Your task to perform on an android device: Search for pizza restaurants on Maps Image 0: 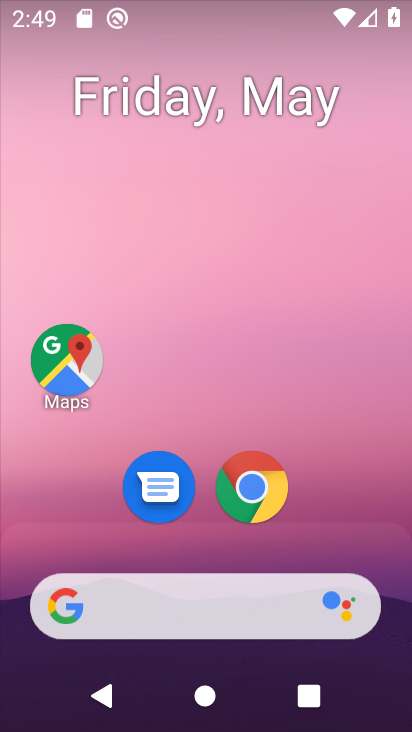
Step 0: click (68, 380)
Your task to perform on an android device: Search for pizza restaurants on Maps Image 1: 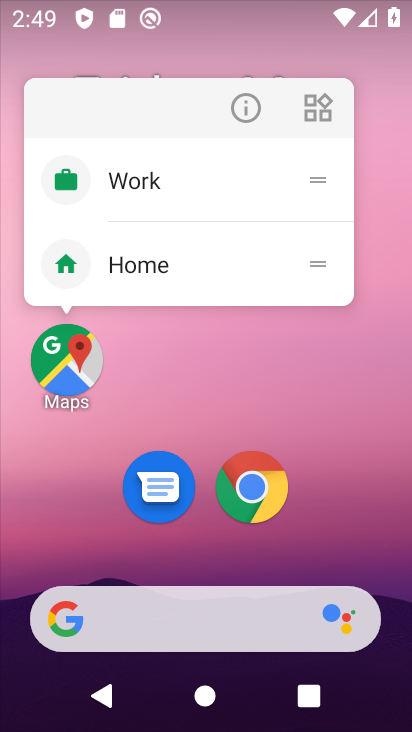
Step 1: click (70, 383)
Your task to perform on an android device: Search for pizza restaurants on Maps Image 2: 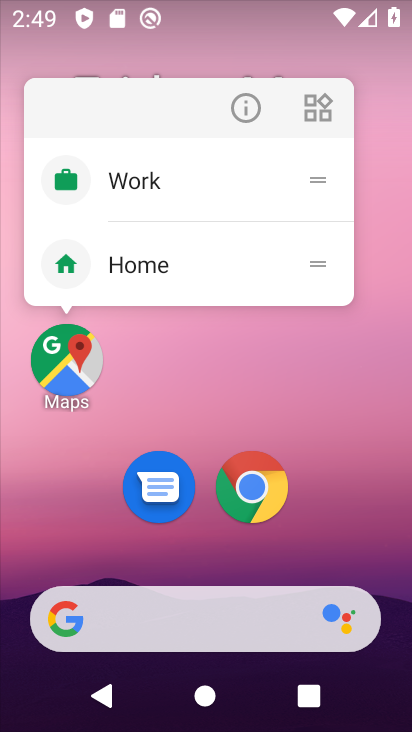
Step 2: click (68, 378)
Your task to perform on an android device: Search for pizza restaurants on Maps Image 3: 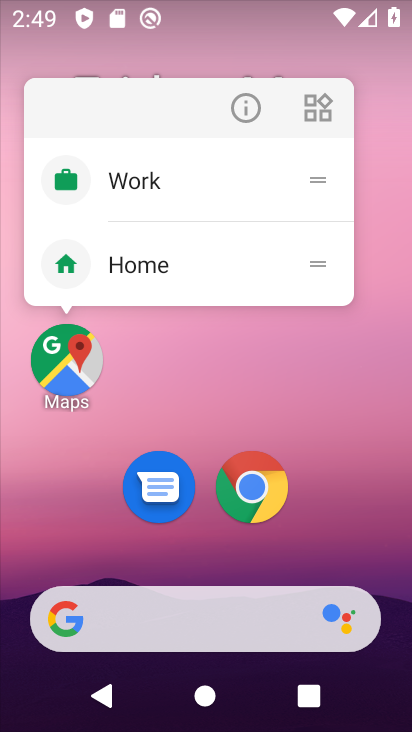
Step 3: click (68, 378)
Your task to perform on an android device: Search for pizza restaurants on Maps Image 4: 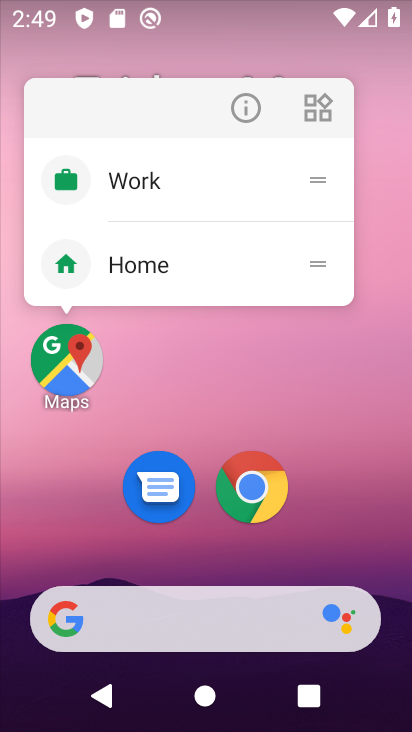
Step 4: click (68, 378)
Your task to perform on an android device: Search for pizza restaurants on Maps Image 5: 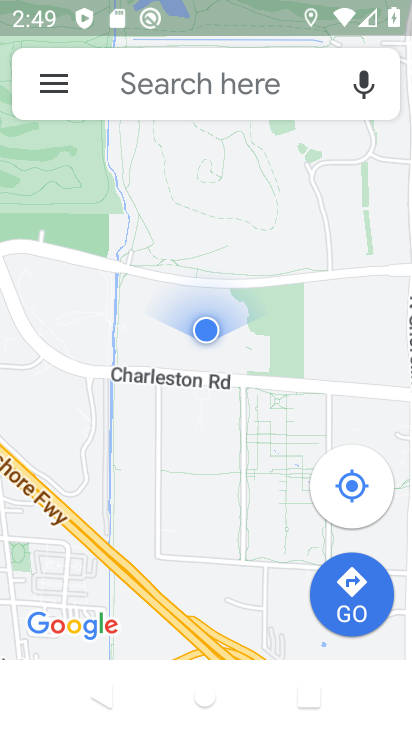
Step 5: click (223, 102)
Your task to perform on an android device: Search for pizza restaurants on Maps Image 6: 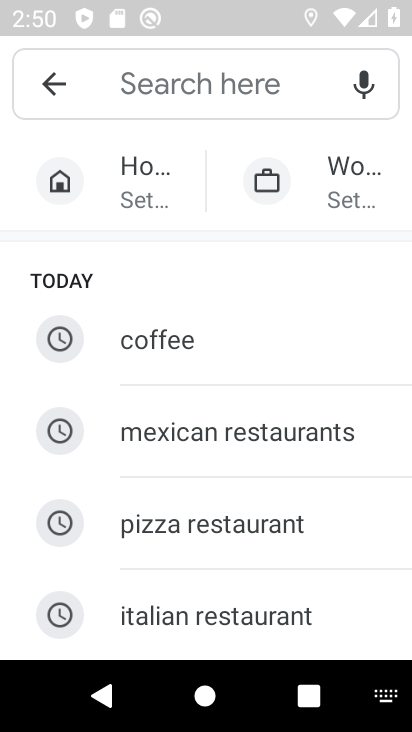
Step 6: type "Pizza restaurants"
Your task to perform on an android device: Search for pizza restaurants on Maps Image 7: 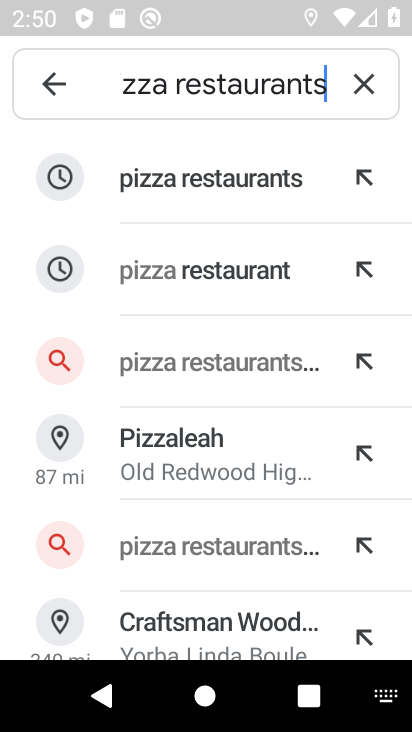
Step 7: click (207, 188)
Your task to perform on an android device: Search for pizza restaurants on Maps Image 8: 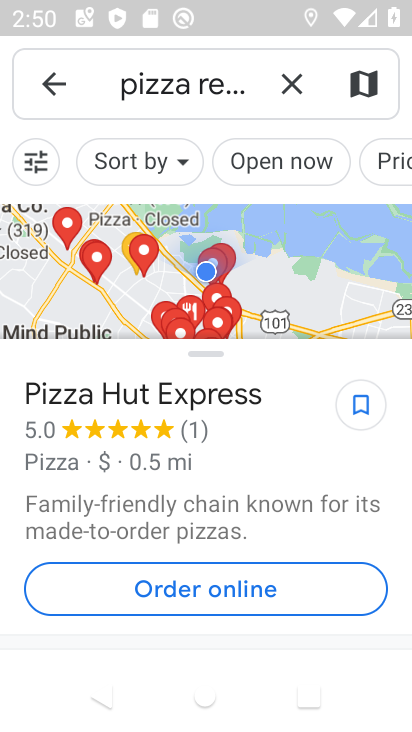
Step 8: task complete